Your task to perform on an android device: clear all cookies in the chrome app Image 0: 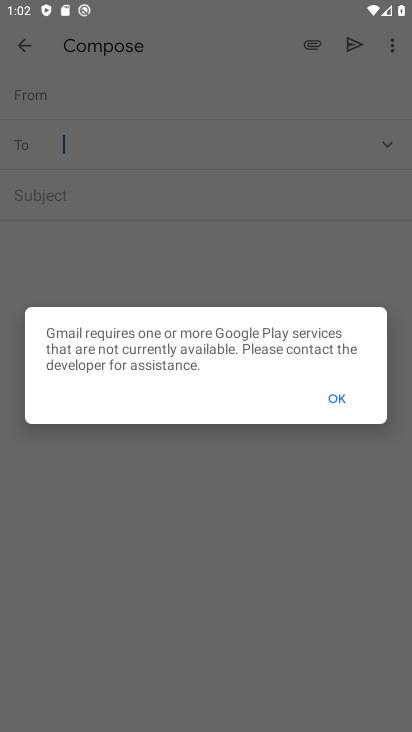
Step 0: press home button
Your task to perform on an android device: clear all cookies in the chrome app Image 1: 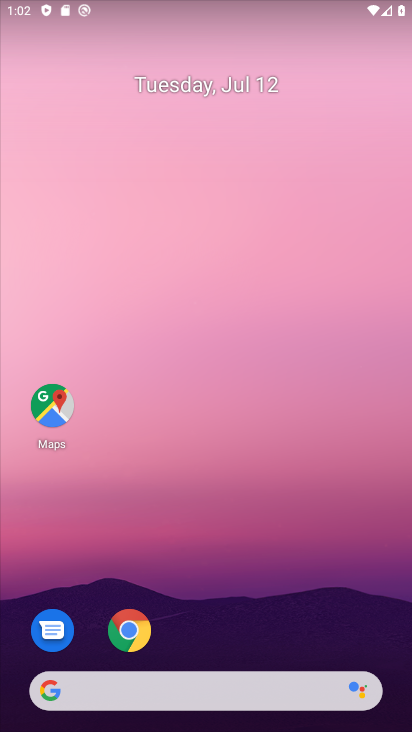
Step 1: drag from (179, 672) to (78, 31)
Your task to perform on an android device: clear all cookies in the chrome app Image 2: 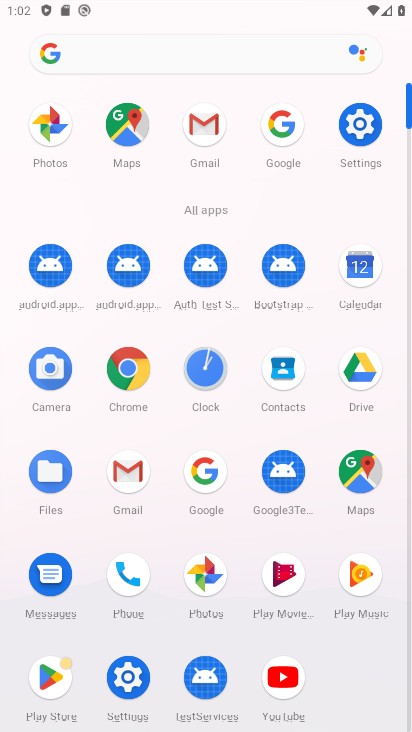
Step 2: click (125, 373)
Your task to perform on an android device: clear all cookies in the chrome app Image 3: 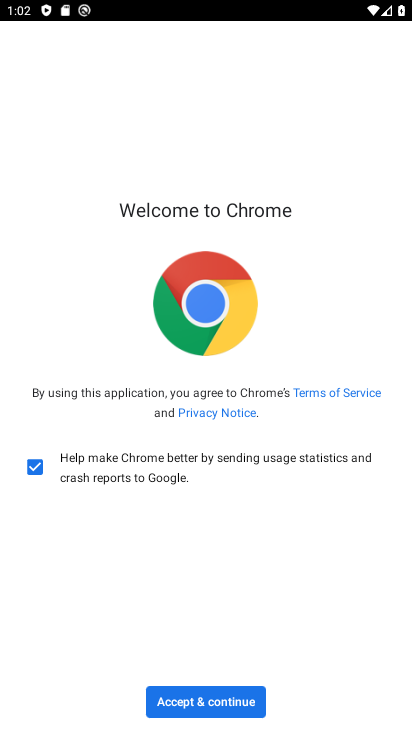
Step 3: click (214, 692)
Your task to perform on an android device: clear all cookies in the chrome app Image 4: 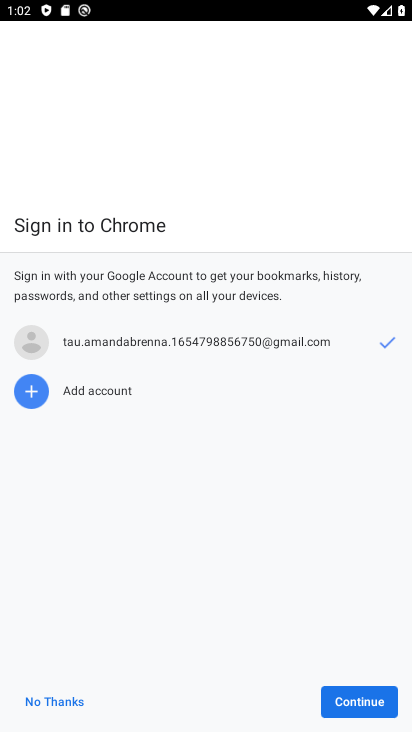
Step 4: click (370, 717)
Your task to perform on an android device: clear all cookies in the chrome app Image 5: 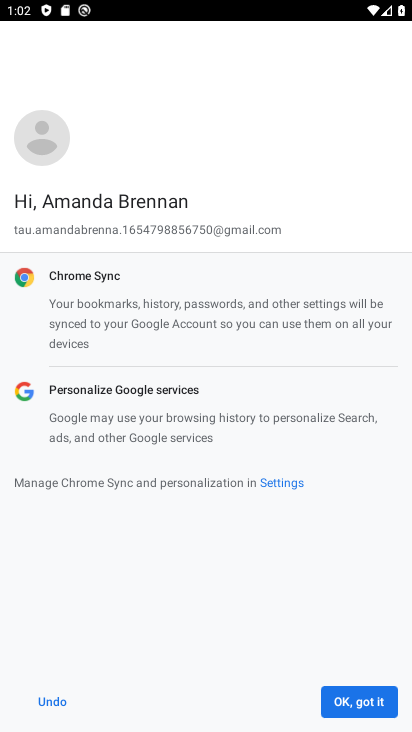
Step 5: click (372, 709)
Your task to perform on an android device: clear all cookies in the chrome app Image 6: 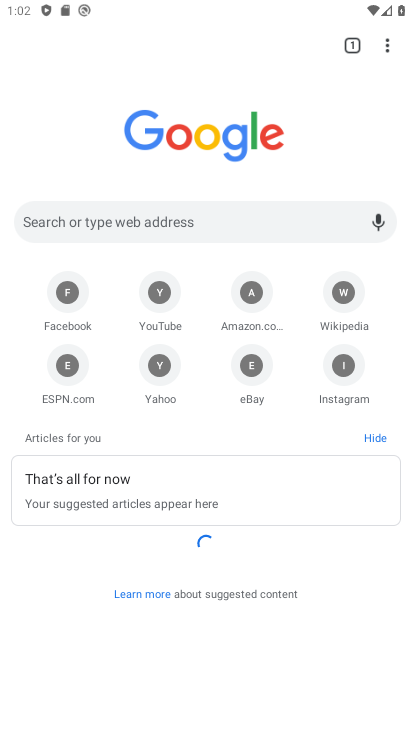
Step 6: drag from (386, 42) to (237, 373)
Your task to perform on an android device: clear all cookies in the chrome app Image 7: 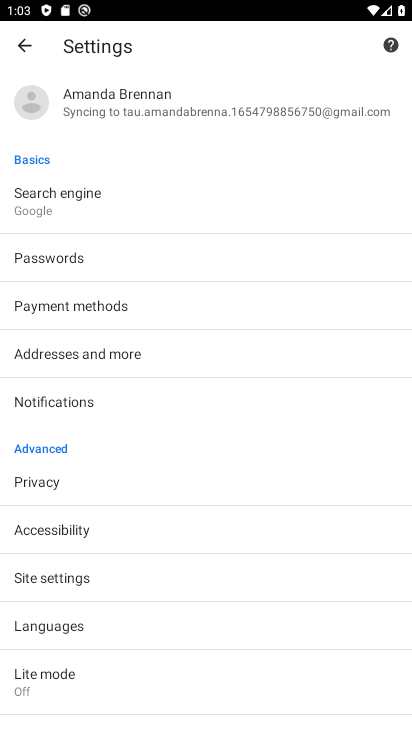
Step 7: drag from (163, 569) to (152, 201)
Your task to perform on an android device: clear all cookies in the chrome app Image 8: 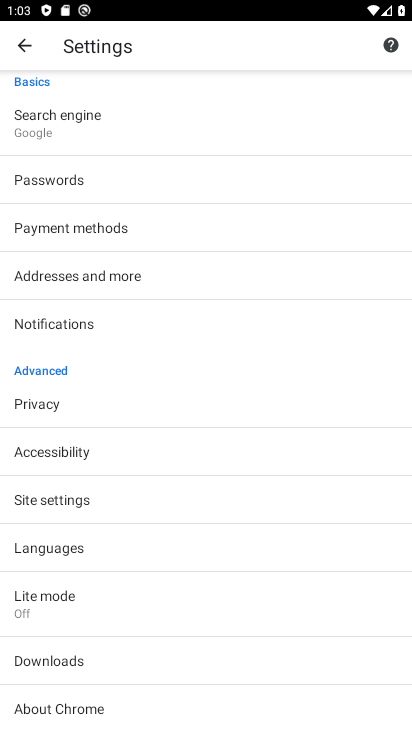
Step 8: drag from (127, 205) to (145, 397)
Your task to perform on an android device: clear all cookies in the chrome app Image 9: 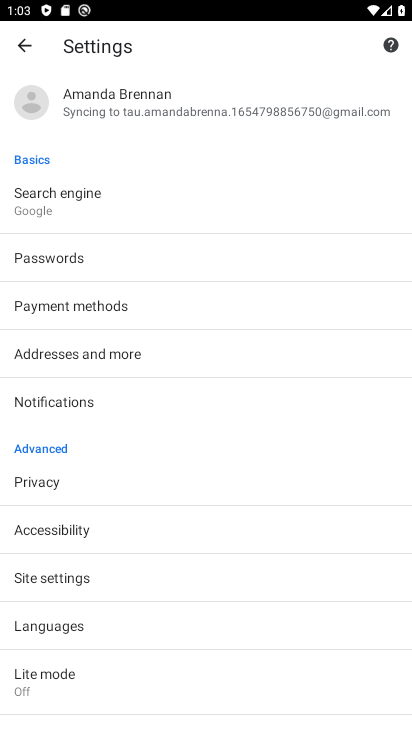
Step 9: click (47, 495)
Your task to perform on an android device: clear all cookies in the chrome app Image 10: 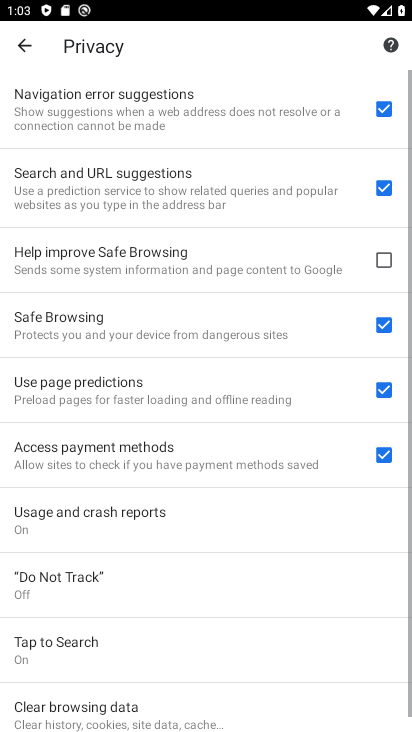
Step 10: drag from (142, 662) to (119, 333)
Your task to perform on an android device: clear all cookies in the chrome app Image 11: 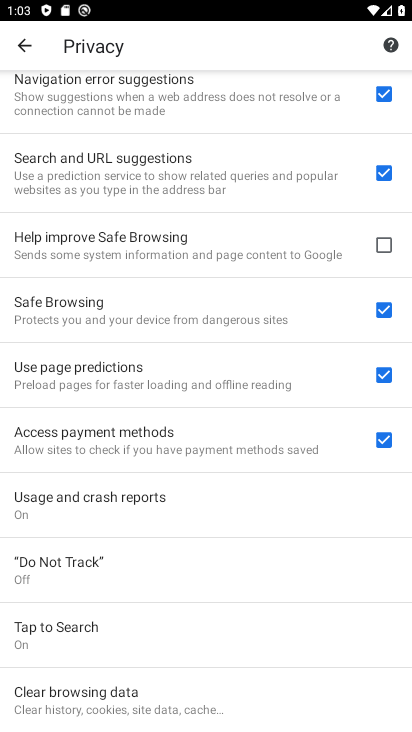
Step 11: click (81, 679)
Your task to perform on an android device: clear all cookies in the chrome app Image 12: 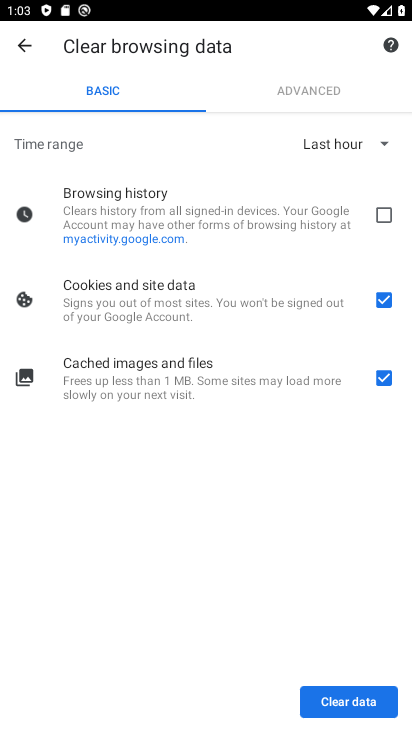
Step 12: click (341, 701)
Your task to perform on an android device: clear all cookies in the chrome app Image 13: 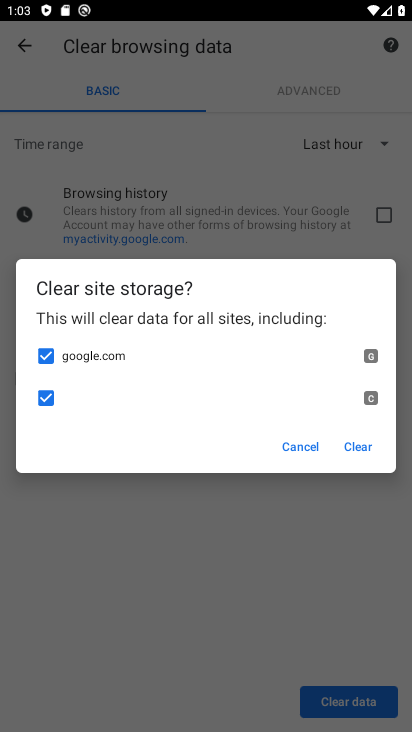
Step 13: click (363, 448)
Your task to perform on an android device: clear all cookies in the chrome app Image 14: 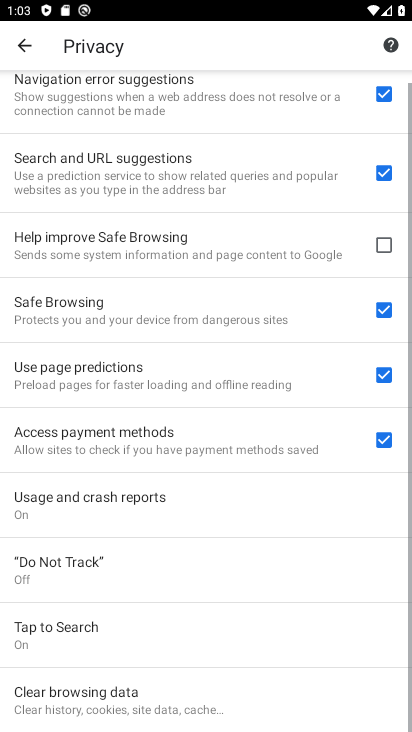
Step 14: task complete